Your task to perform on an android device: Open Youtube and go to the subscriptions tab Image 0: 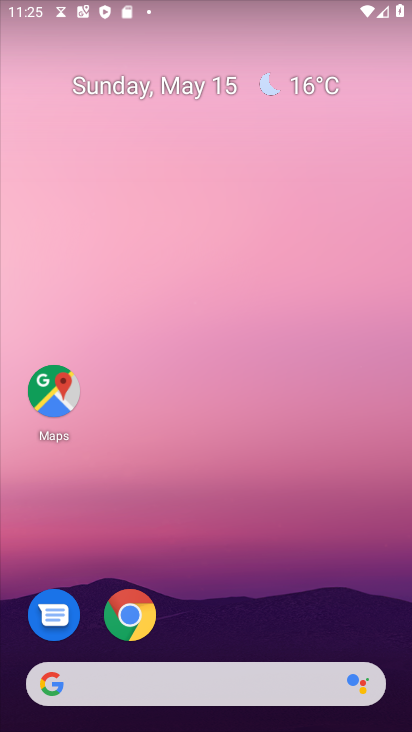
Step 0: drag from (151, 725) to (322, 42)
Your task to perform on an android device: Open Youtube and go to the subscriptions tab Image 1: 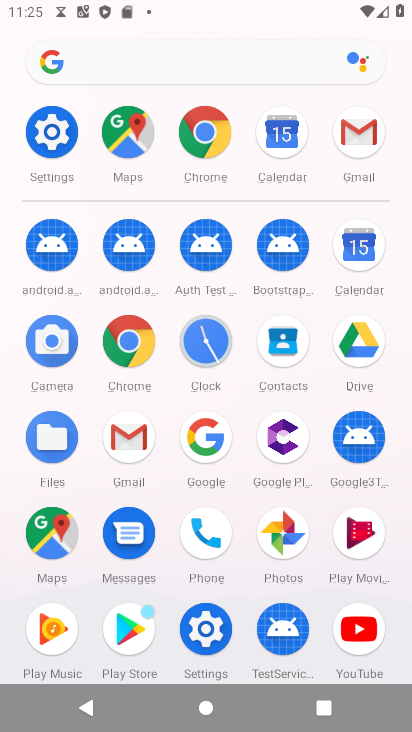
Step 1: click (362, 632)
Your task to perform on an android device: Open Youtube and go to the subscriptions tab Image 2: 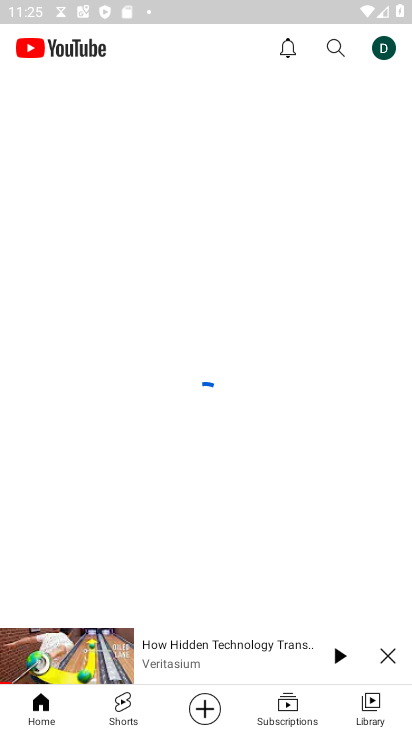
Step 2: click (277, 702)
Your task to perform on an android device: Open Youtube and go to the subscriptions tab Image 3: 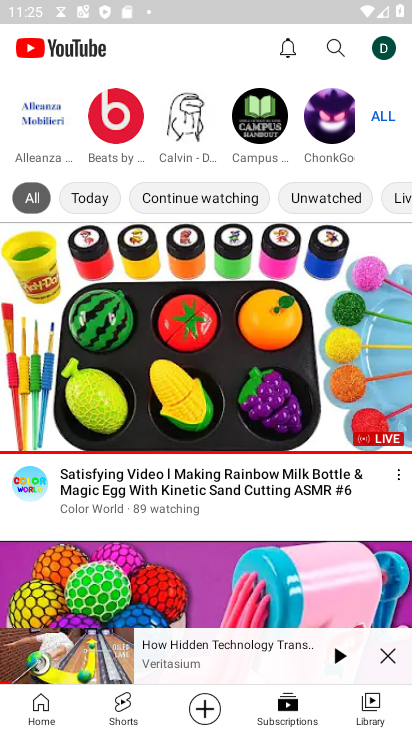
Step 3: task complete